Your task to perform on an android device: set an alarm Image 0: 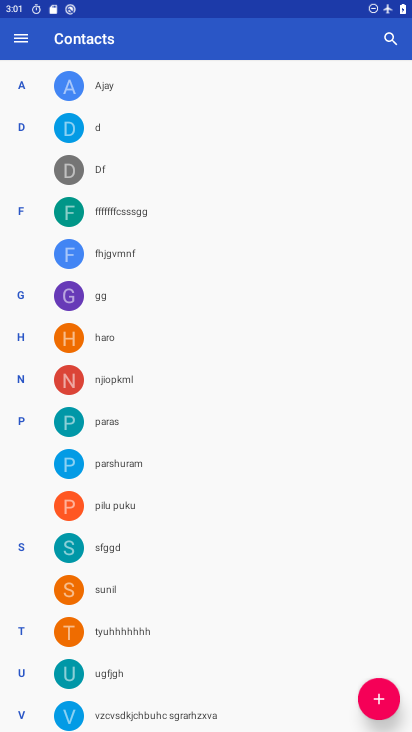
Step 0: press home button
Your task to perform on an android device: set an alarm Image 1: 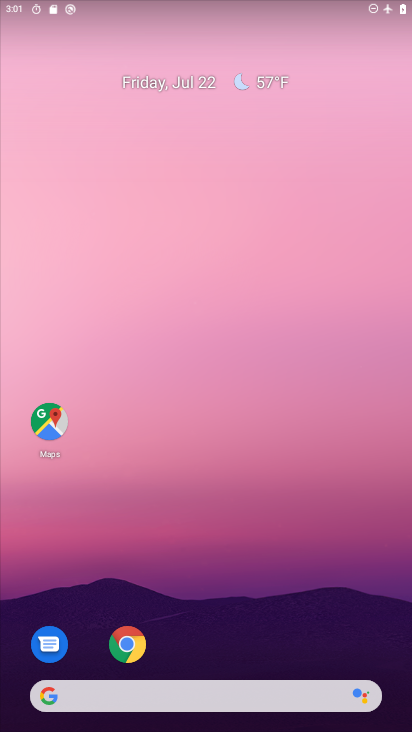
Step 1: drag from (212, 650) to (178, 259)
Your task to perform on an android device: set an alarm Image 2: 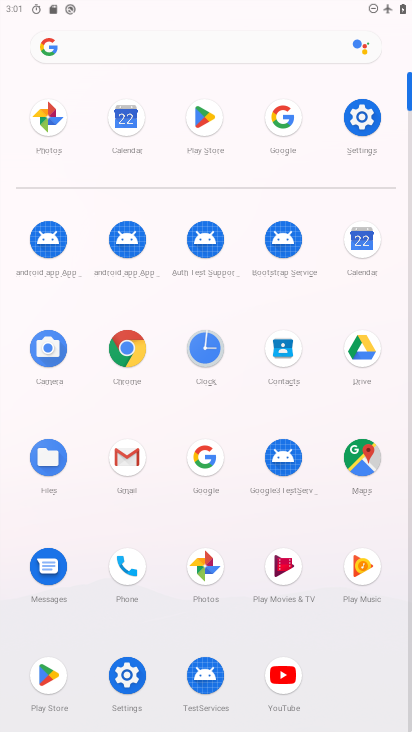
Step 2: click (229, 362)
Your task to perform on an android device: set an alarm Image 3: 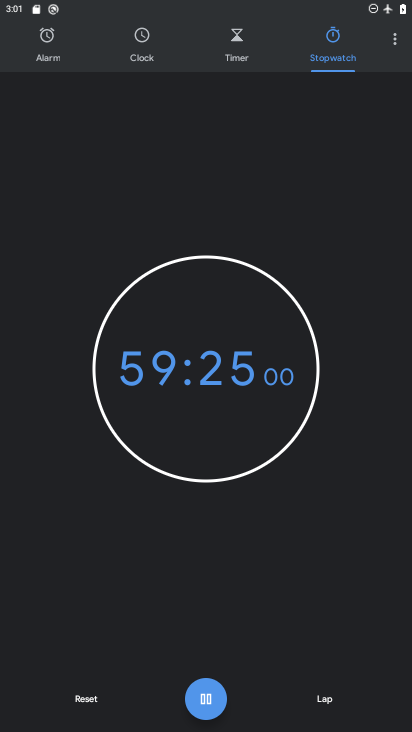
Step 3: click (56, 56)
Your task to perform on an android device: set an alarm Image 4: 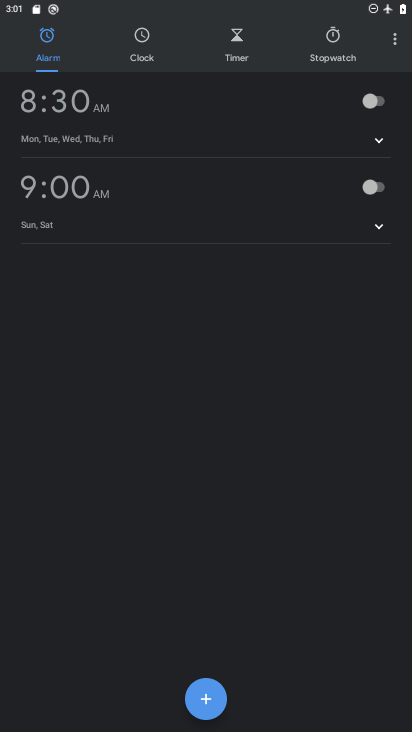
Step 4: click (373, 105)
Your task to perform on an android device: set an alarm Image 5: 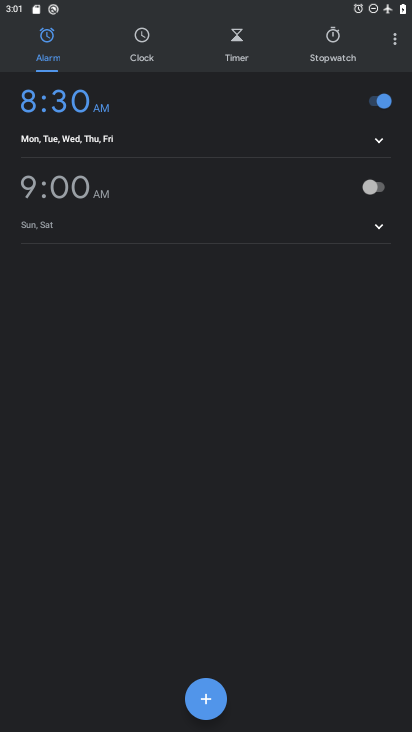
Step 5: task complete